Your task to perform on an android device: find snoozed emails in the gmail app Image 0: 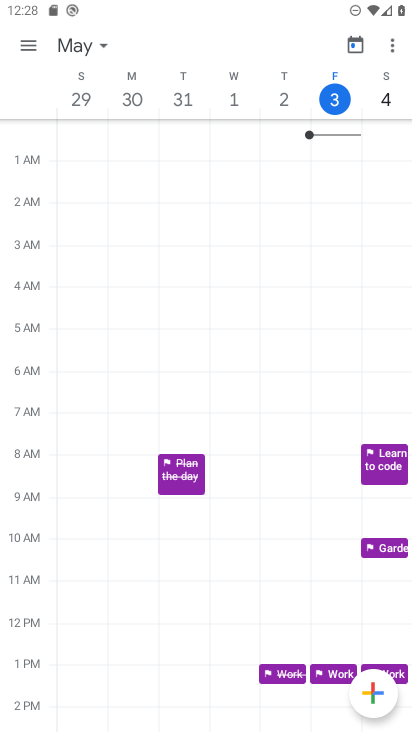
Step 0: drag from (263, 626) to (186, 87)
Your task to perform on an android device: find snoozed emails in the gmail app Image 1: 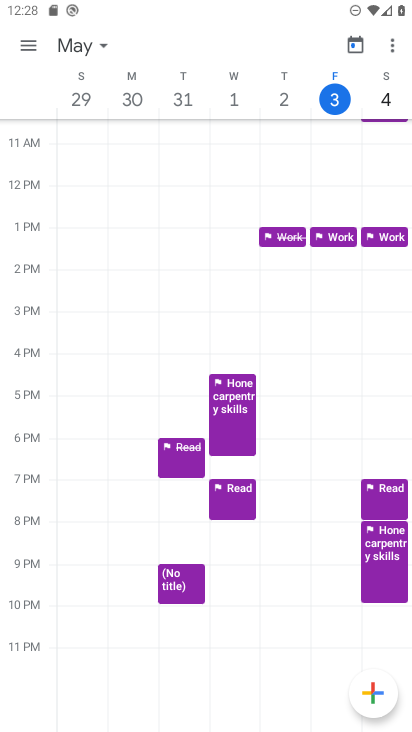
Step 1: press home button
Your task to perform on an android device: find snoozed emails in the gmail app Image 2: 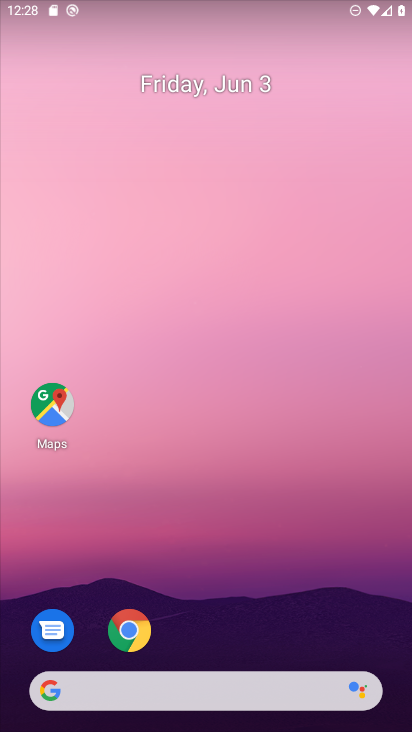
Step 2: drag from (253, 621) to (176, 161)
Your task to perform on an android device: find snoozed emails in the gmail app Image 3: 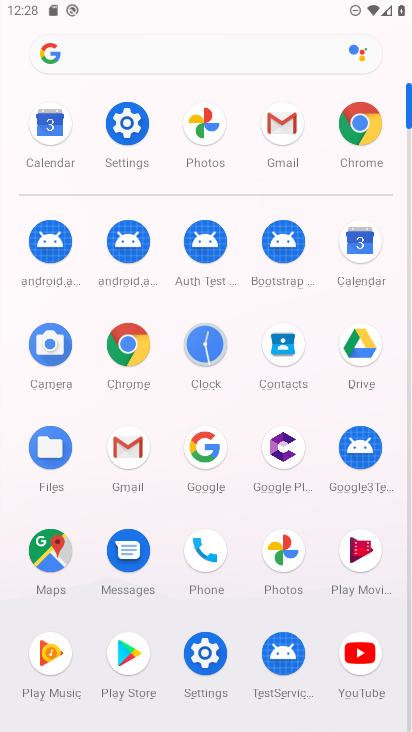
Step 3: click (292, 132)
Your task to perform on an android device: find snoozed emails in the gmail app Image 4: 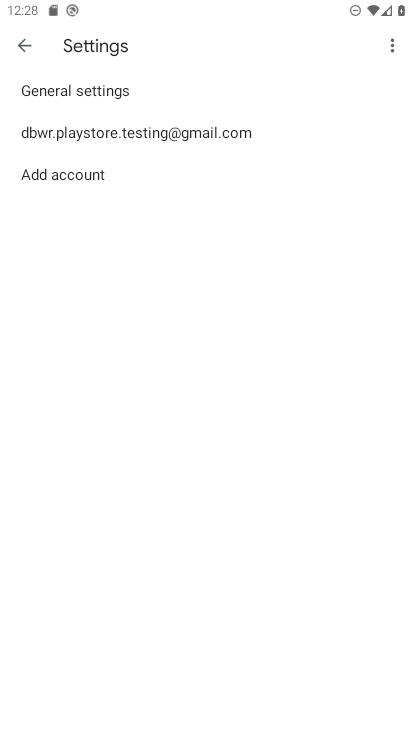
Step 4: click (28, 47)
Your task to perform on an android device: find snoozed emails in the gmail app Image 5: 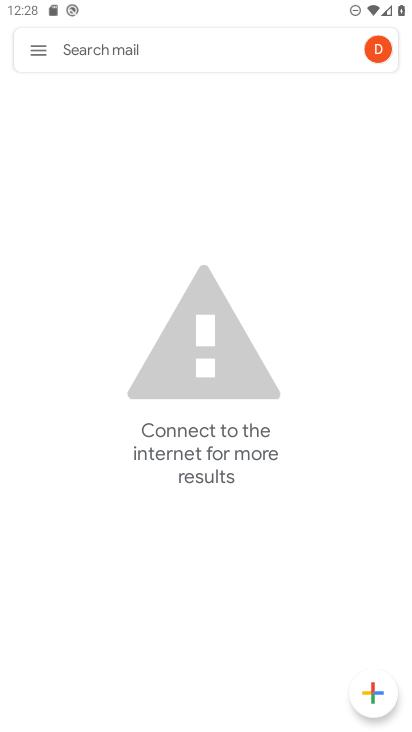
Step 5: click (28, 47)
Your task to perform on an android device: find snoozed emails in the gmail app Image 6: 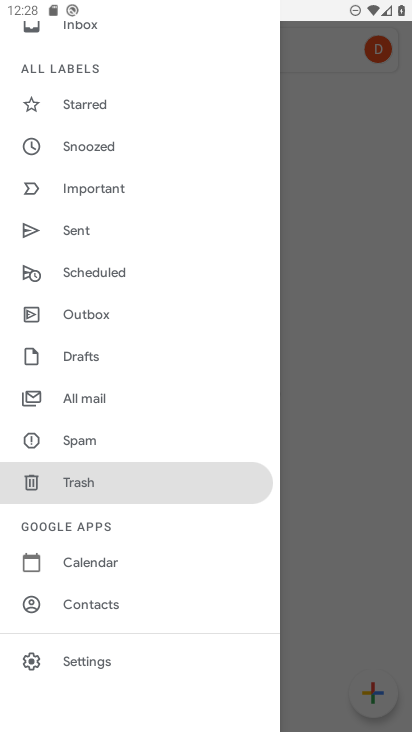
Step 6: click (117, 156)
Your task to perform on an android device: find snoozed emails in the gmail app Image 7: 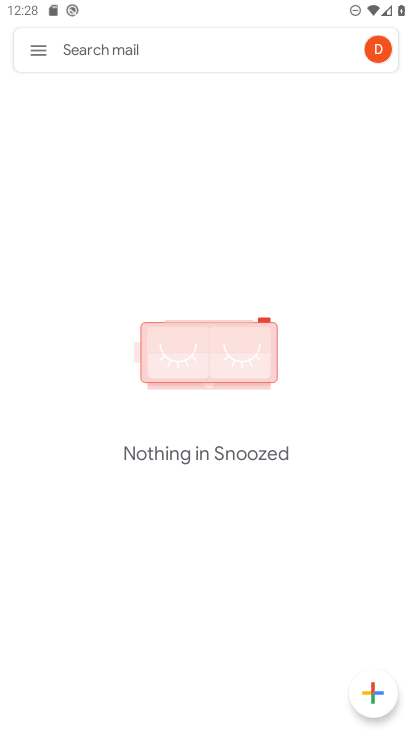
Step 7: task complete